Your task to perform on an android device: delete the emails in spam in the gmail app Image 0: 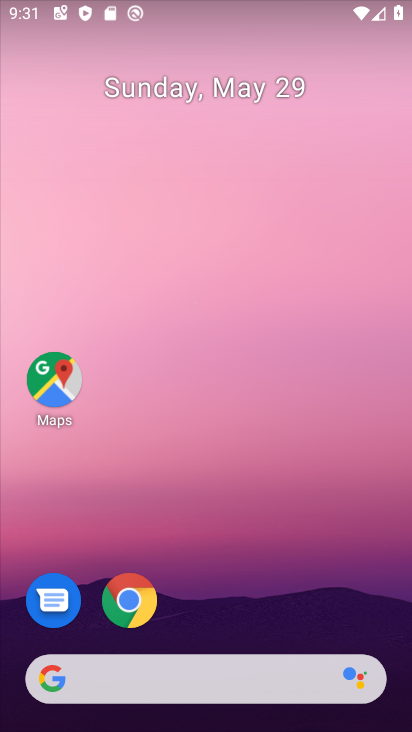
Step 0: drag from (205, 722) to (212, 127)
Your task to perform on an android device: delete the emails in spam in the gmail app Image 1: 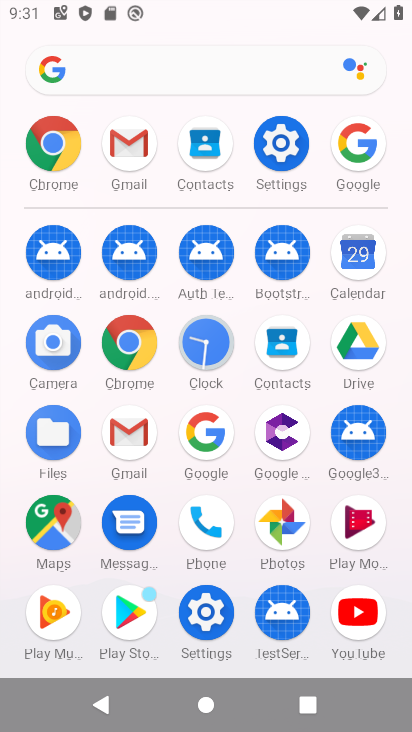
Step 1: click (121, 444)
Your task to perform on an android device: delete the emails in spam in the gmail app Image 2: 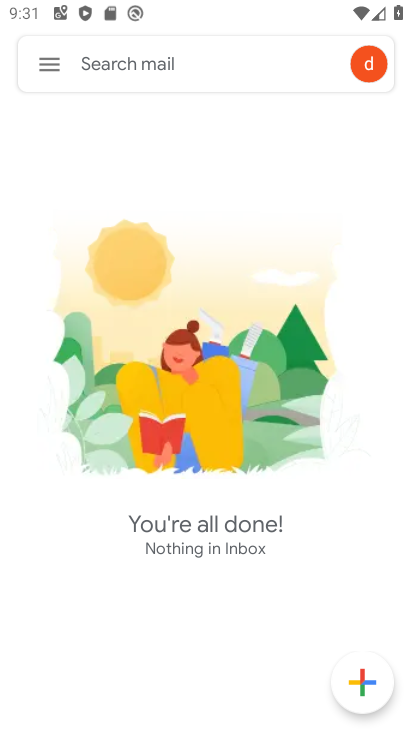
Step 2: click (48, 64)
Your task to perform on an android device: delete the emails in spam in the gmail app Image 3: 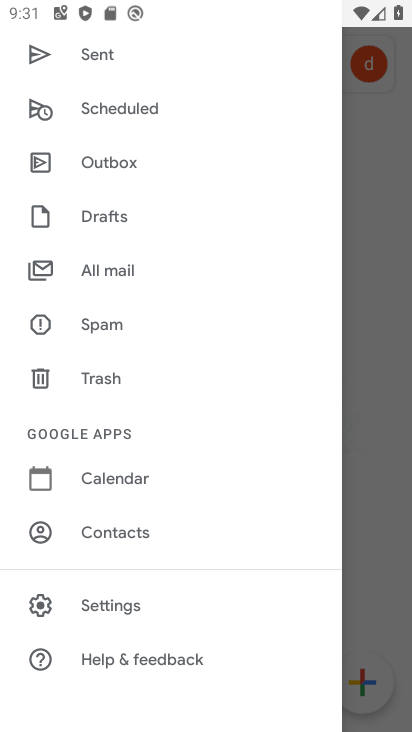
Step 3: click (112, 322)
Your task to perform on an android device: delete the emails in spam in the gmail app Image 4: 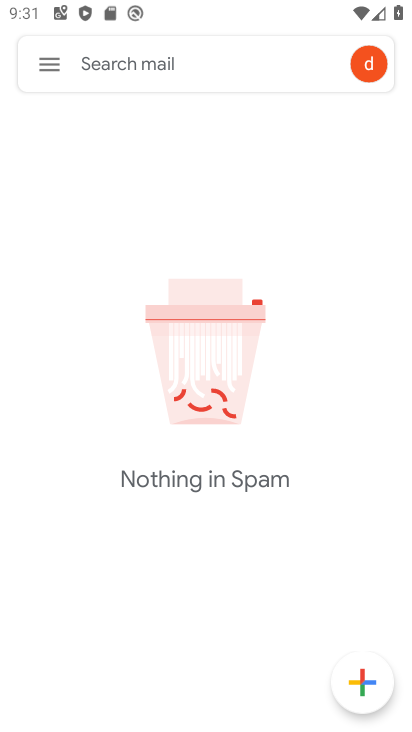
Step 4: task complete